Your task to perform on an android device: Open Wikipedia Image 0: 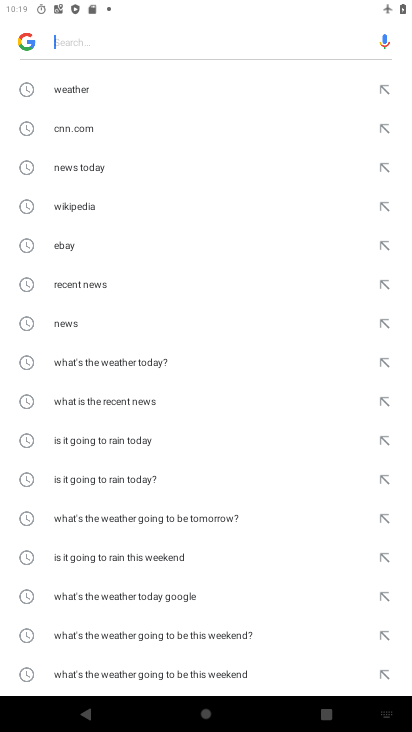
Step 0: click (141, 203)
Your task to perform on an android device: Open Wikipedia Image 1: 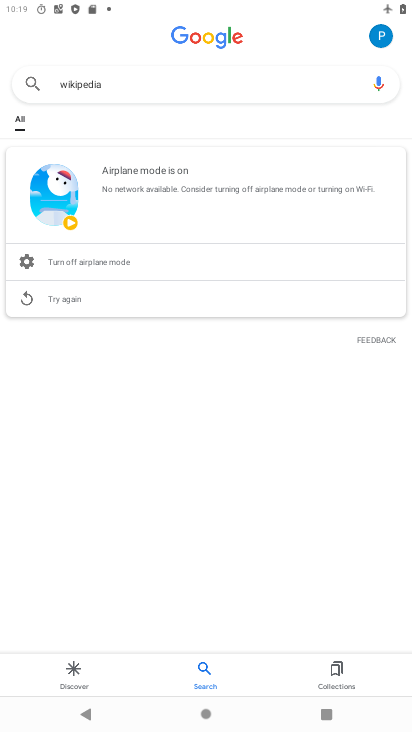
Step 1: task complete